Your task to perform on an android device: Install the Google app Image 0: 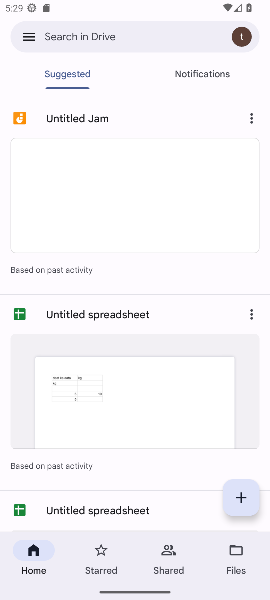
Step 0: press home button
Your task to perform on an android device: Install the Google app Image 1: 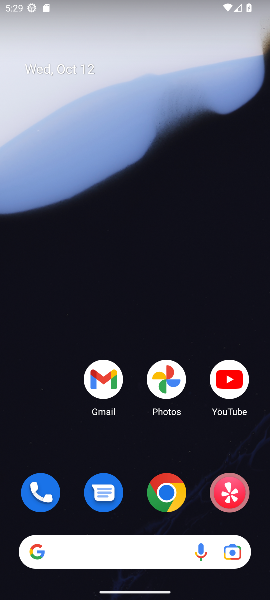
Step 1: drag from (145, 456) to (147, 53)
Your task to perform on an android device: Install the Google app Image 2: 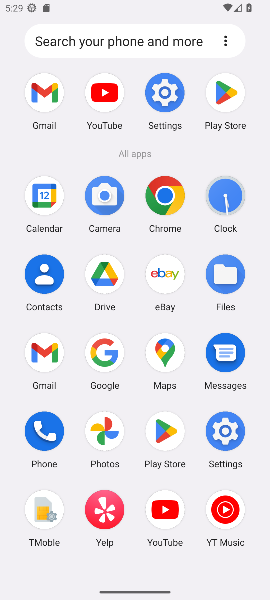
Step 2: click (226, 92)
Your task to perform on an android device: Install the Google app Image 3: 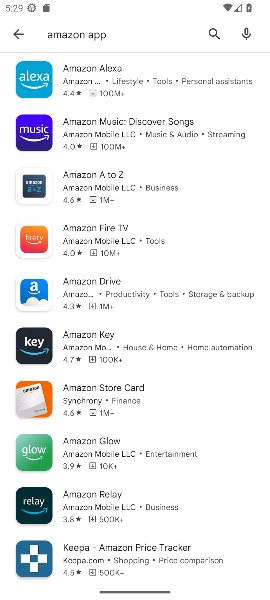
Step 3: click (94, 34)
Your task to perform on an android device: Install the Google app Image 4: 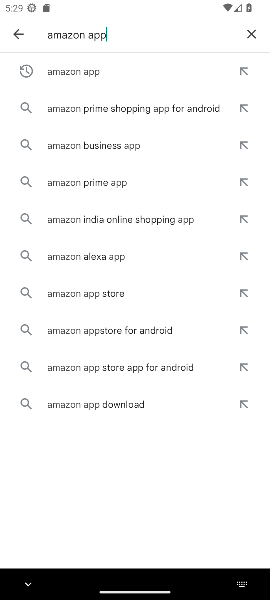
Step 4: click (254, 30)
Your task to perform on an android device: Install the Google app Image 5: 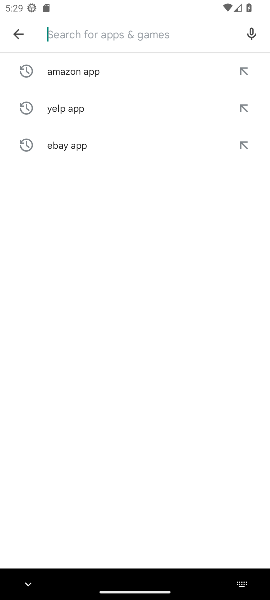
Step 5: type "google app"
Your task to perform on an android device: Install the Google app Image 6: 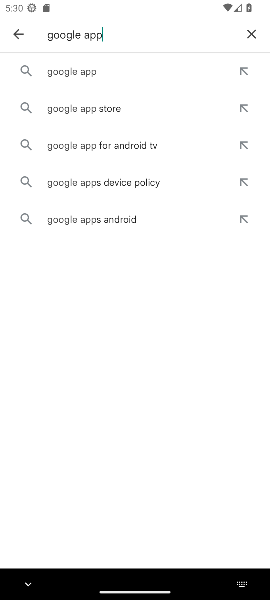
Step 6: click (72, 71)
Your task to perform on an android device: Install the Google app Image 7: 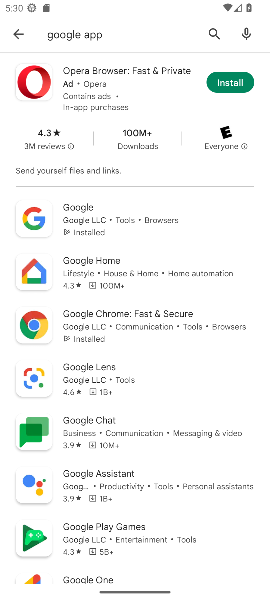
Step 7: task complete